Your task to perform on an android device: Go to Maps Image 0: 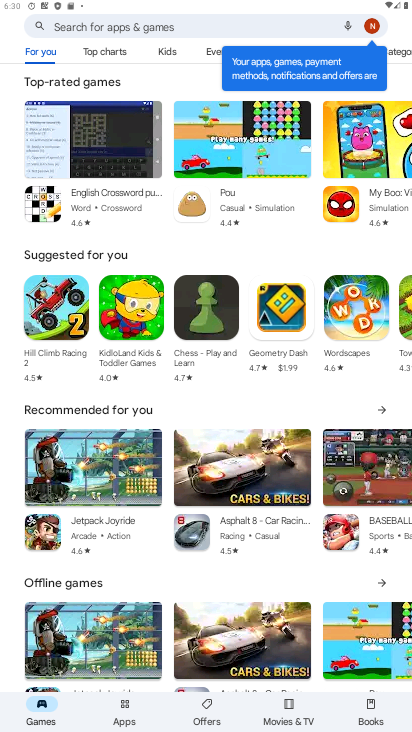
Step 0: task complete